Your task to perform on an android device: Go to display settings Image 0: 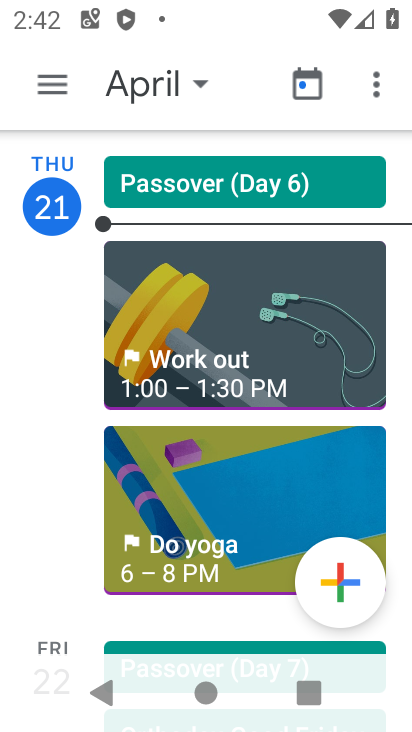
Step 0: press home button
Your task to perform on an android device: Go to display settings Image 1: 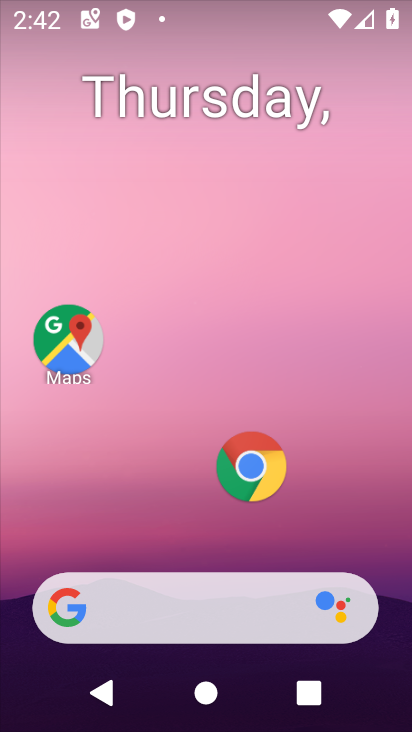
Step 1: drag from (195, 542) to (201, 193)
Your task to perform on an android device: Go to display settings Image 2: 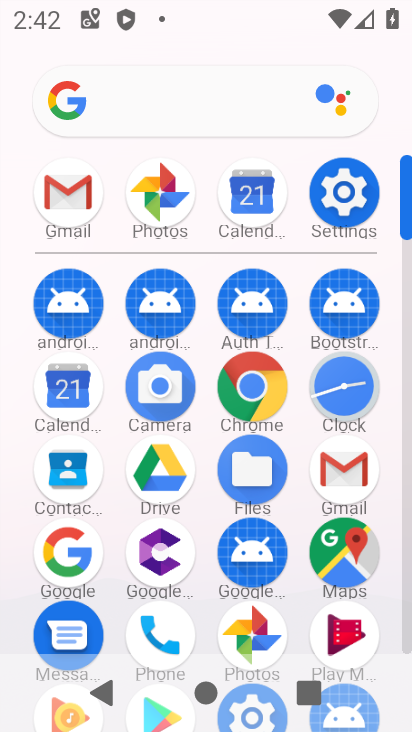
Step 2: click (332, 202)
Your task to perform on an android device: Go to display settings Image 3: 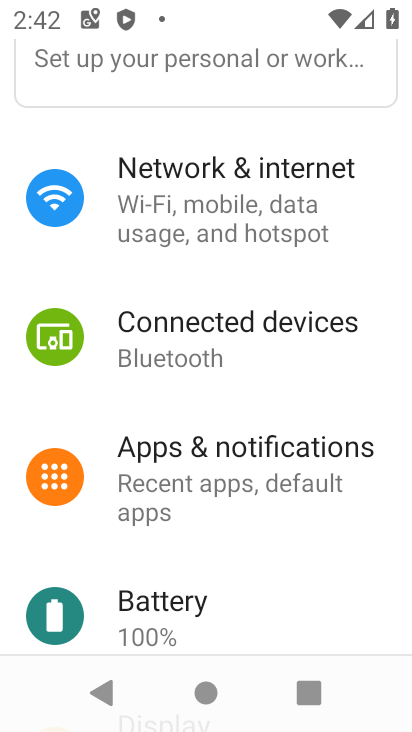
Step 3: drag from (242, 563) to (279, 234)
Your task to perform on an android device: Go to display settings Image 4: 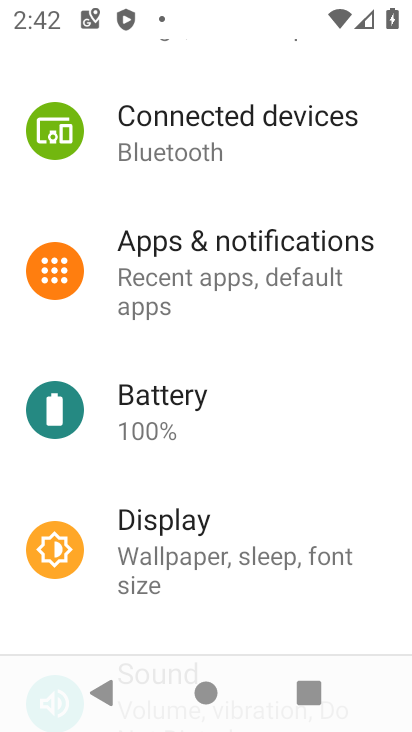
Step 4: click (172, 510)
Your task to perform on an android device: Go to display settings Image 5: 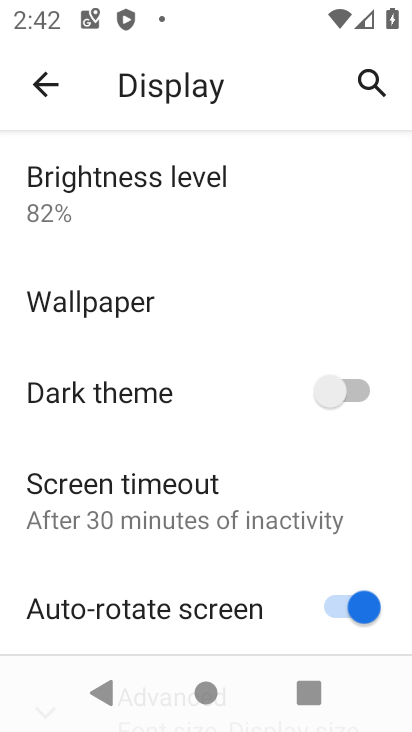
Step 5: task complete